Your task to perform on an android device: open device folders in google photos Image 0: 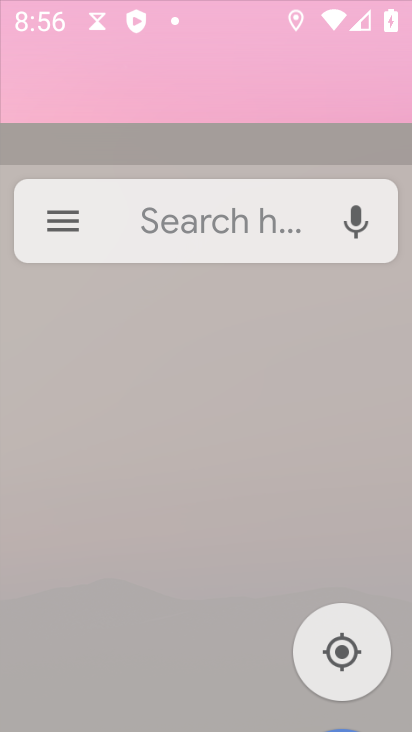
Step 0: click (146, 40)
Your task to perform on an android device: open device folders in google photos Image 1: 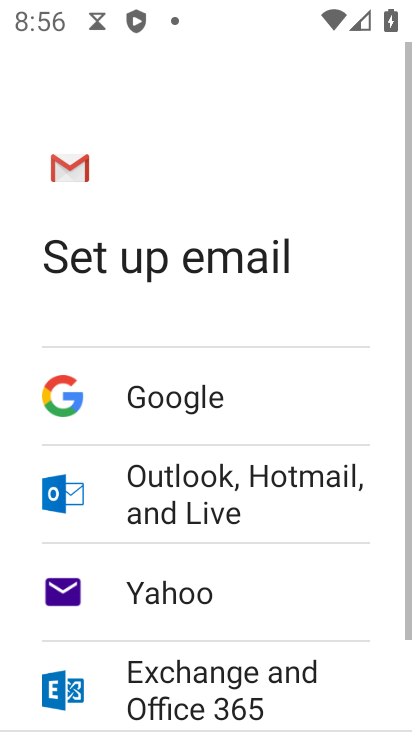
Step 1: press back button
Your task to perform on an android device: open device folders in google photos Image 2: 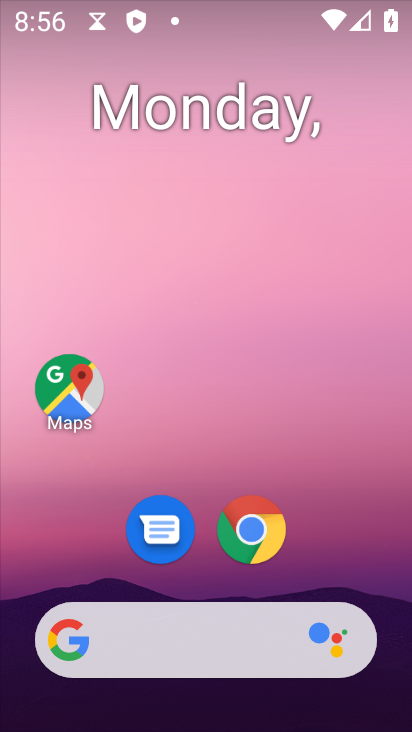
Step 2: drag from (275, 556) to (173, 109)
Your task to perform on an android device: open device folders in google photos Image 3: 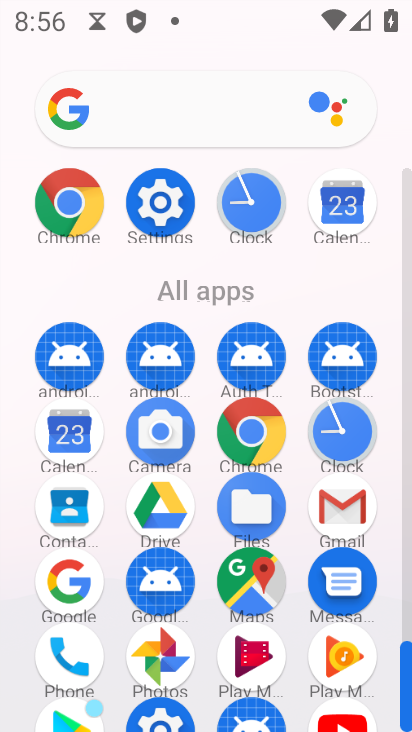
Step 3: click (160, 656)
Your task to perform on an android device: open device folders in google photos Image 4: 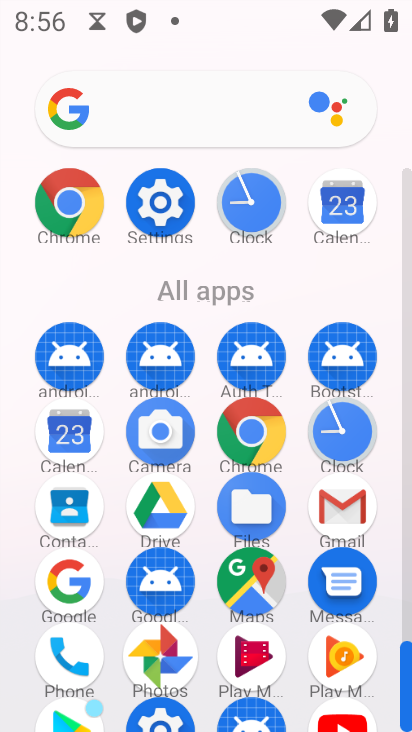
Step 4: click (160, 655)
Your task to perform on an android device: open device folders in google photos Image 5: 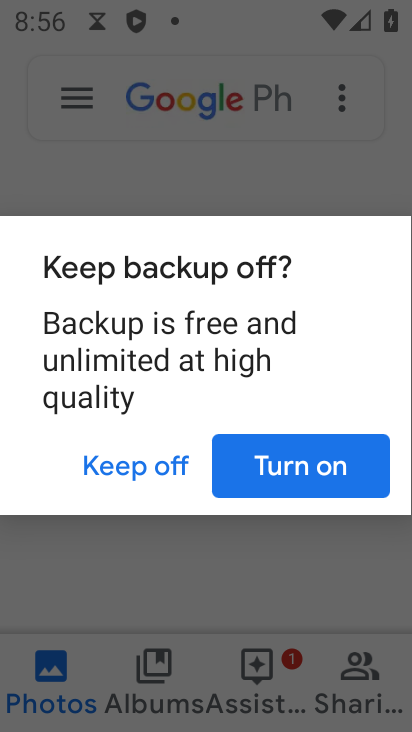
Step 5: click (160, 655)
Your task to perform on an android device: open device folders in google photos Image 6: 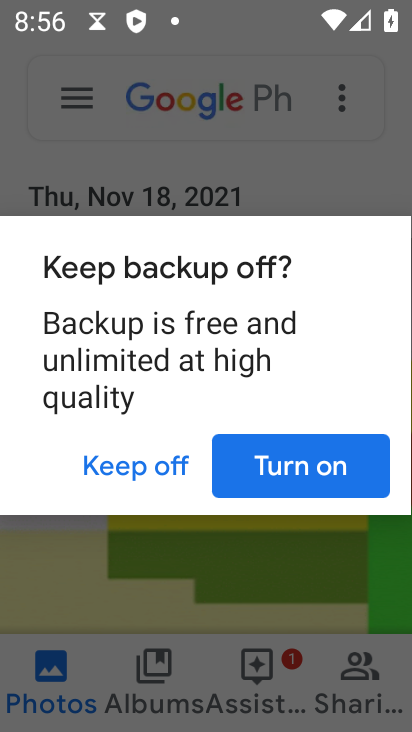
Step 6: click (173, 469)
Your task to perform on an android device: open device folders in google photos Image 7: 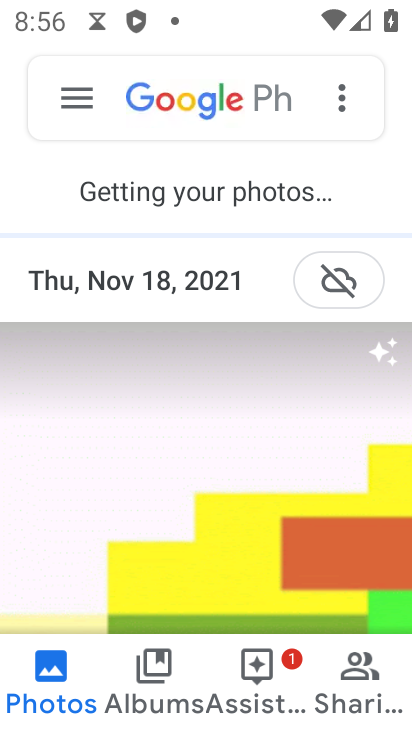
Step 7: click (109, 468)
Your task to perform on an android device: open device folders in google photos Image 8: 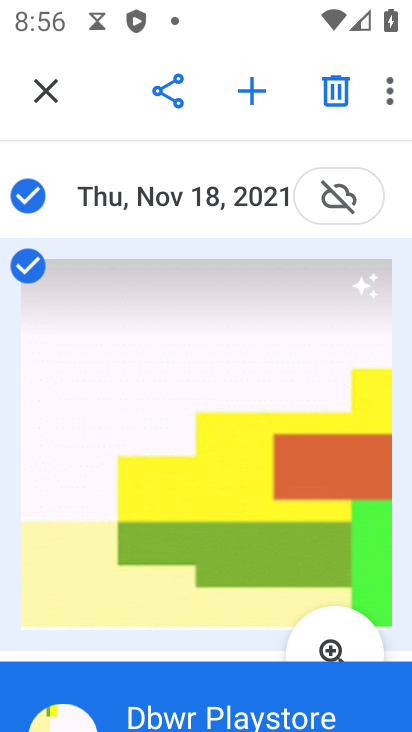
Step 8: click (47, 96)
Your task to perform on an android device: open device folders in google photos Image 9: 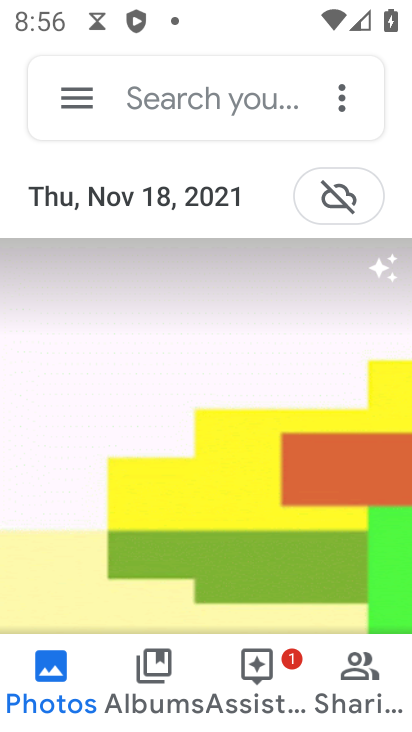
Step 9: click (75, 97)
Your task to perform on an android device: open device folders in google photos Image 10: 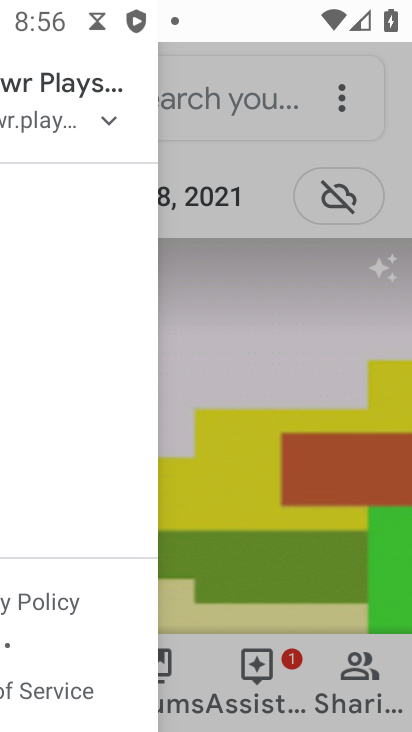
Step 10: click (75, 97)
Your task to perform on an android device: open device folders in google photos Image 11: 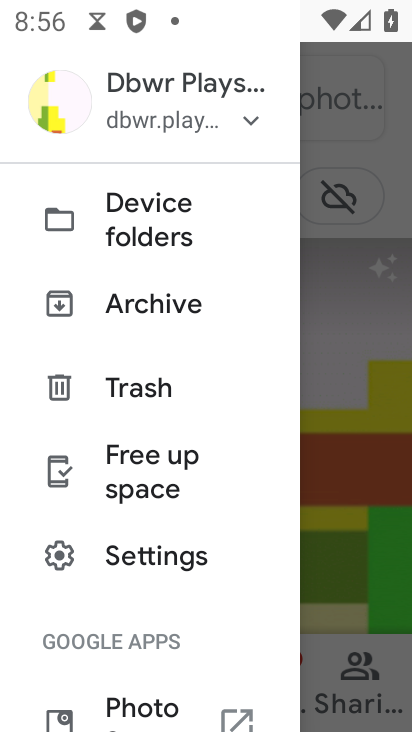
Step 11: click (149, 216)
Your task to perform on an android device: open device folders in google photos Image 12: 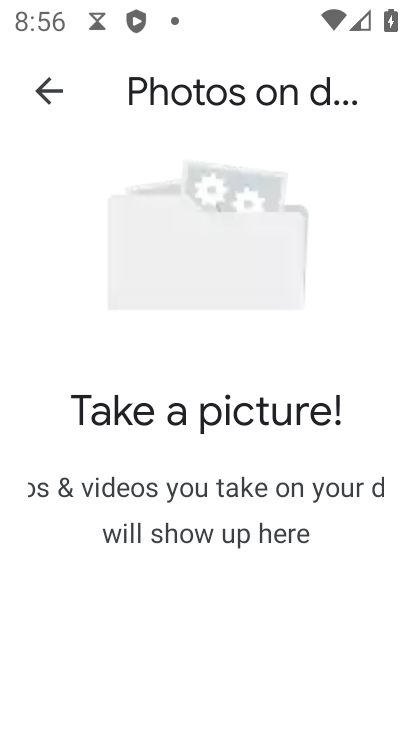
Step 12: task complete